Your task to perform on an android device: Search for Italian restaurants on Maps Image 0: 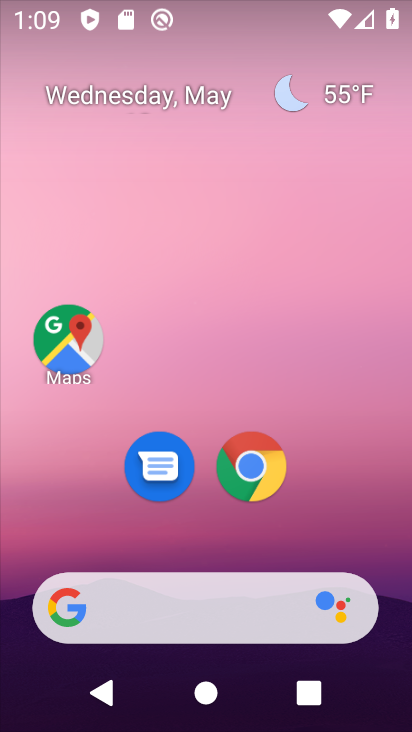
Step 0: click (74, 345)
Your task to perform on an android device: Search for Italian restaurants on Maps Image 1: 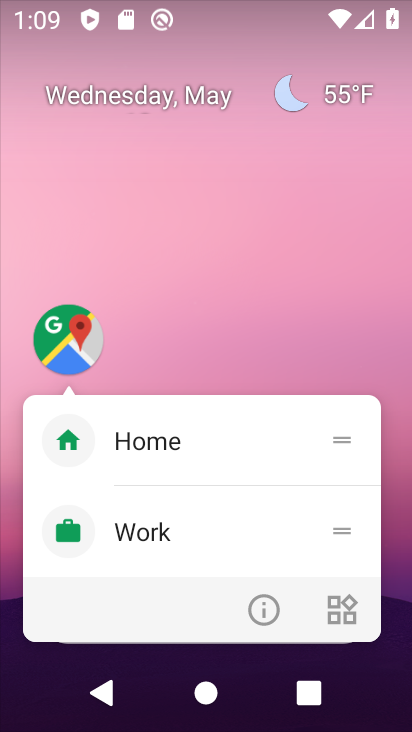
Step 1: click (74, 330)
Your task to perform on an android device: Search for Italian restaurants on Maps Image 2: 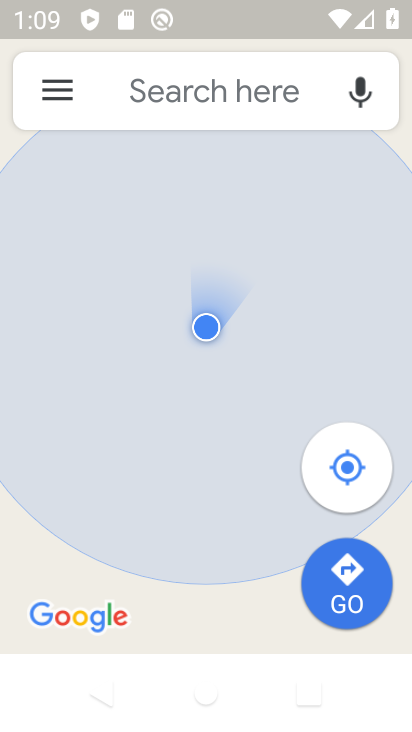
Step 2: click (218, 86)
Your task to perform on an android device: Search for Italian restaurants on Maps Image 3: 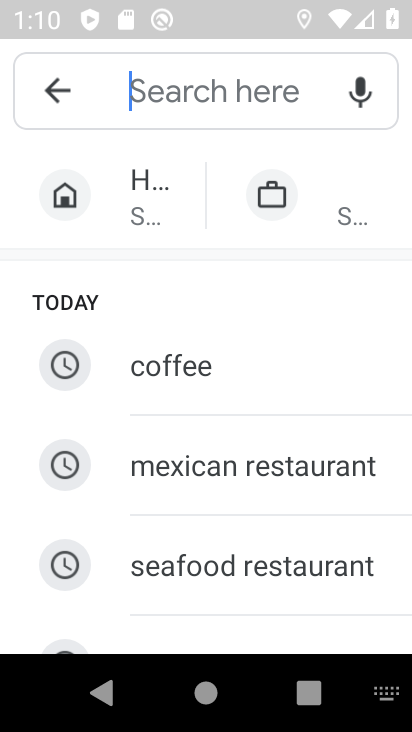
Step 3: type "italian restaurant"
Your task to perform on an android device: Search for Italian restaurants on Maps Image 4: 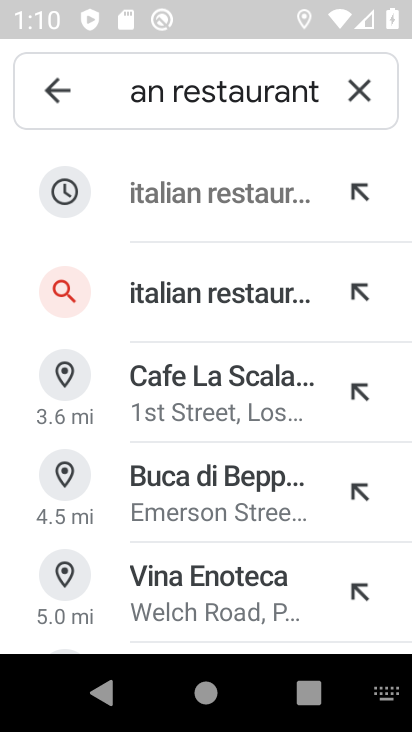
Step 4: click (185, 182)
Your task to perform on an android device: Search for Italian restaurants on Maps Image 5: 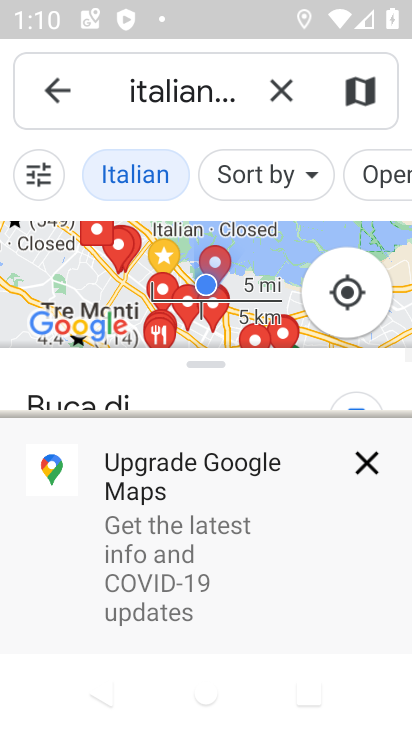
Step 5: click (350, 466)
Your task to perform on an android device: Search for Italian restaurants on Maps Image 6: 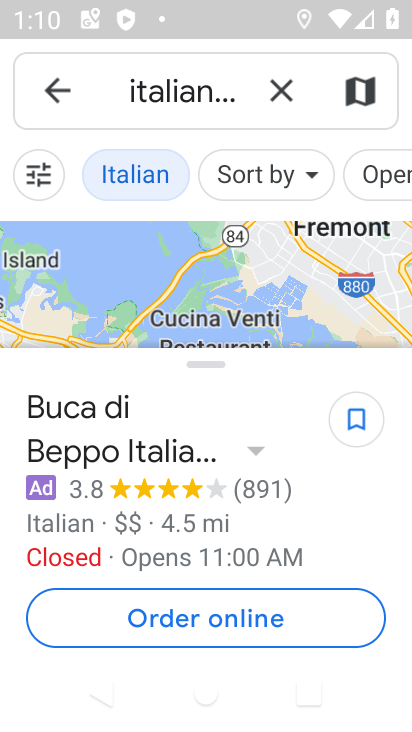
Step 6: task complete